Your task to perform on an android device: Show me popular games on the Play Store Image 0: 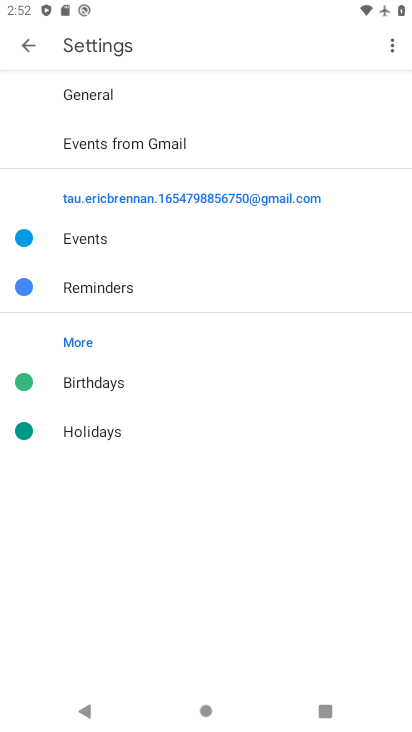
Step 0: press home button
Your task to perform on an android device: Show me popular games on the Play Store Image 1: 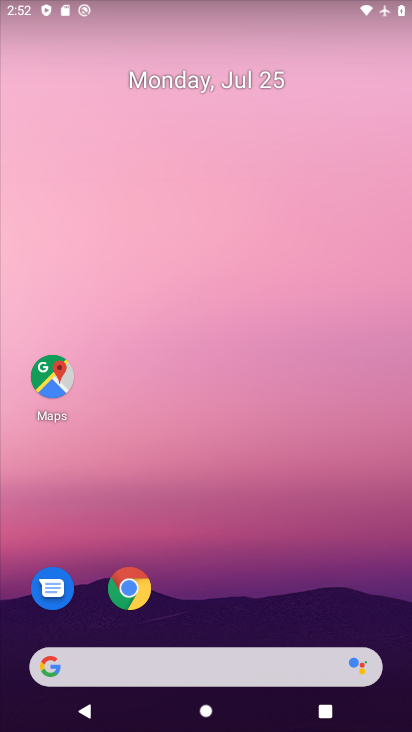
Step 1: drag from (234, 729) to (235, 30)
Your task to perform on an android device: Show me popular games on the Play Store Image 2: 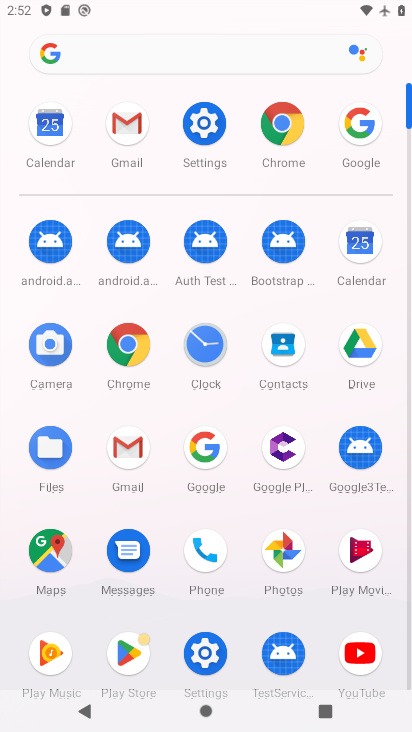
Step 2: click (127, 649)
Your task to perform on an android device: Show me popular games on the Play Store Image 3: 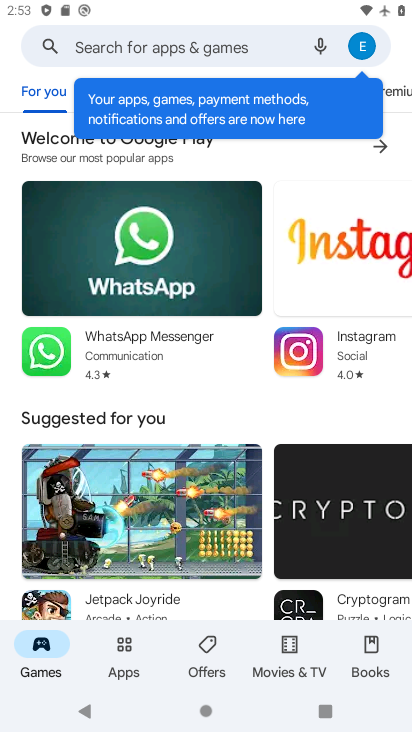
Step 3: drag from (214, 602) to (194, 259)
Your task to perform on an android device: Show me popular games on the Play Store Image 4: 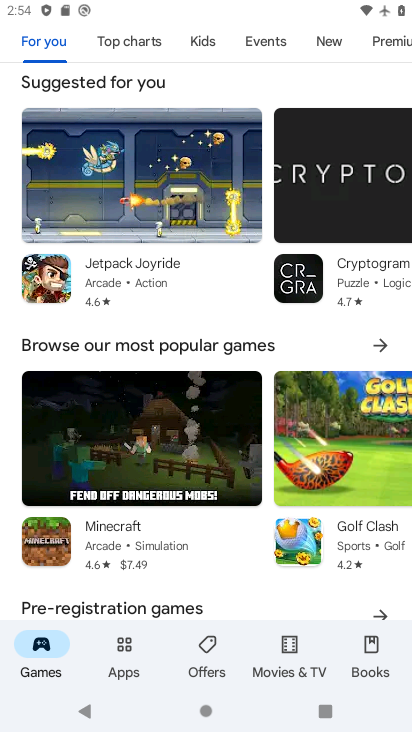
Step 4: drag from (242, 597) to (238, 440)
Your task to perform on an android device: Show me popular games on the Play Store Image 5: 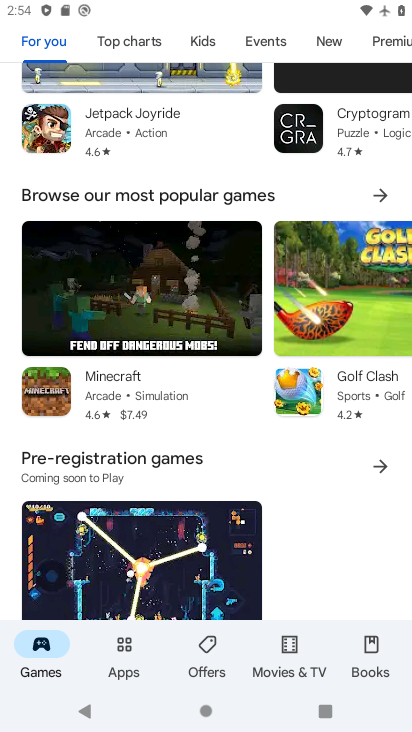
Step 5: click (378, 192)
Your task to perform on an android device: Show me popular games on the Play Store Image 6: 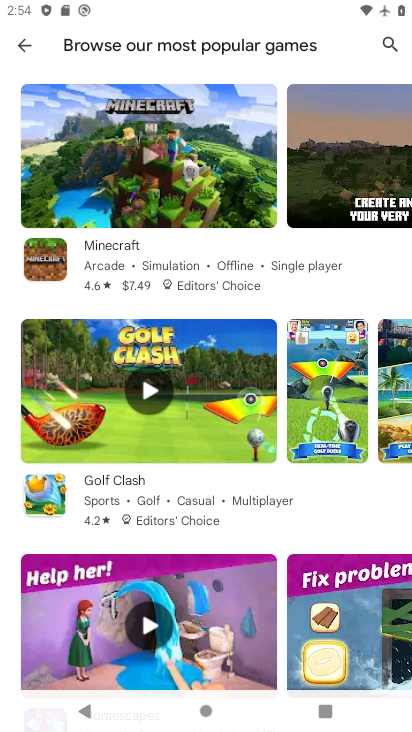
Step 6: task complete